Your task to perform on an android device: Open privacy settings Image 0: 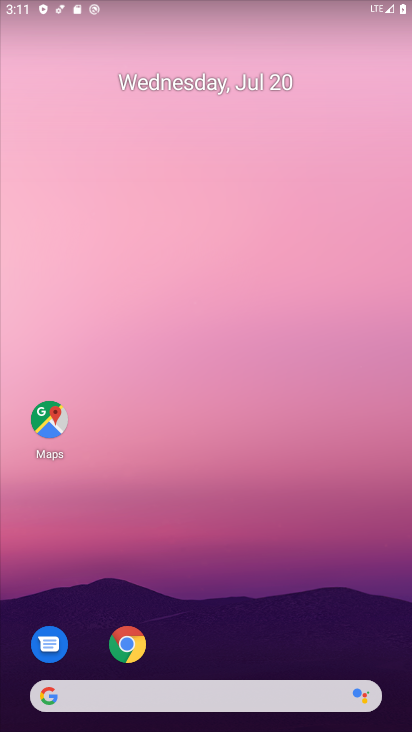
Step 0: drag from (20, 686) to (288, 33)
Your task to perform on an android device: Open privacy settings Image 1: 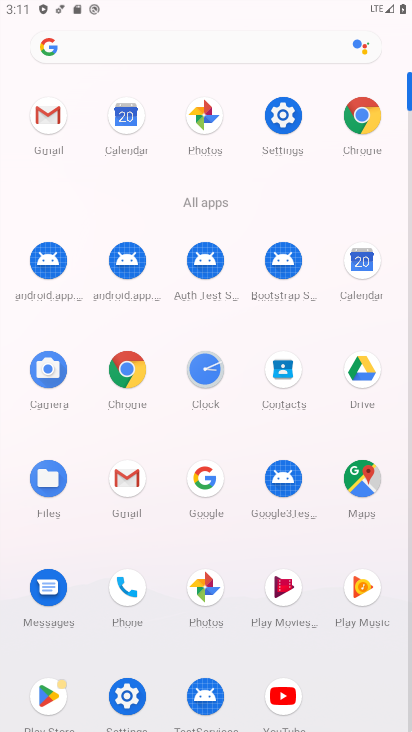
Step 1: click (130, 698)
Your task to perform on an android device: Open privacy settings Image 2: 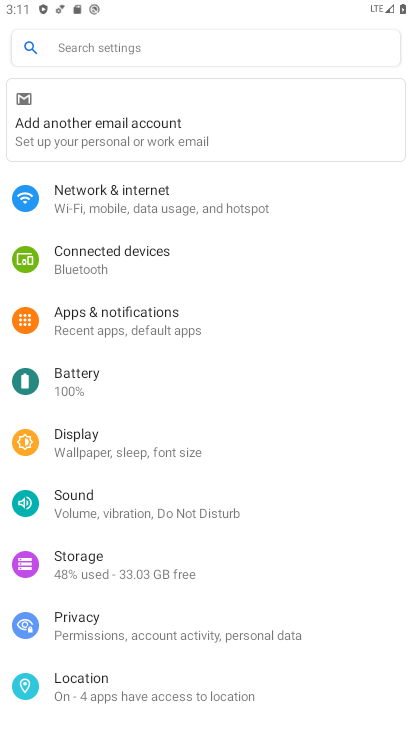
Step 2: click (74, 627)
Your task to perform on an android device: Open privacy settings Image 3: 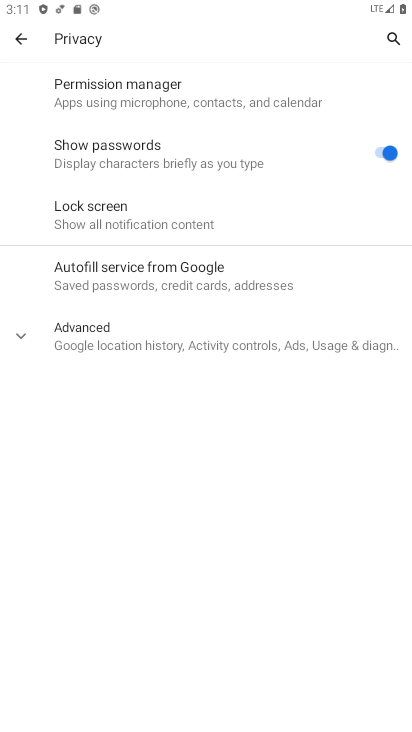
Step 3: task complete